Your task to perform on an android device: make emails show in primary in the gmail app Image 0: 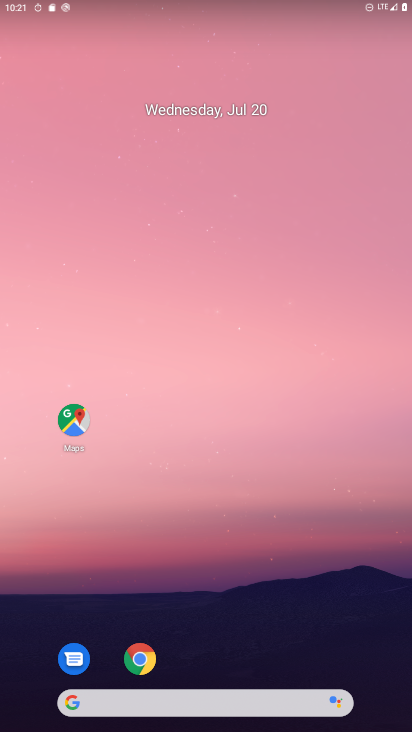
Step 0: drag from (302, 639) to (198, 101)
Your task to perform on an android device: make emails show in primary in the gmail app Image 1: 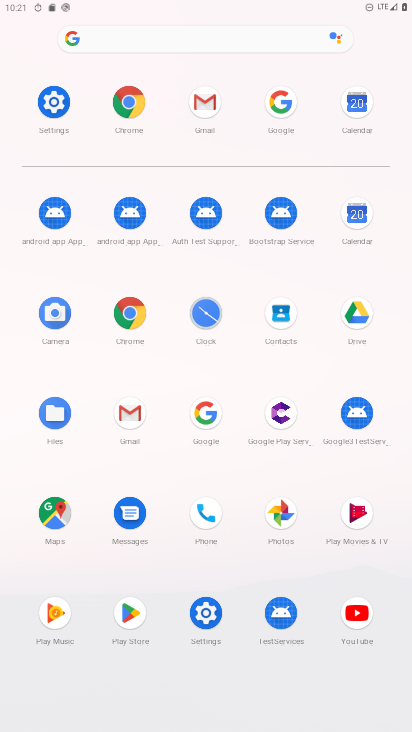
Step 1: click (204, 104)
Your task to perform on an android device: make emails show in primary in the gmail app Image 2: 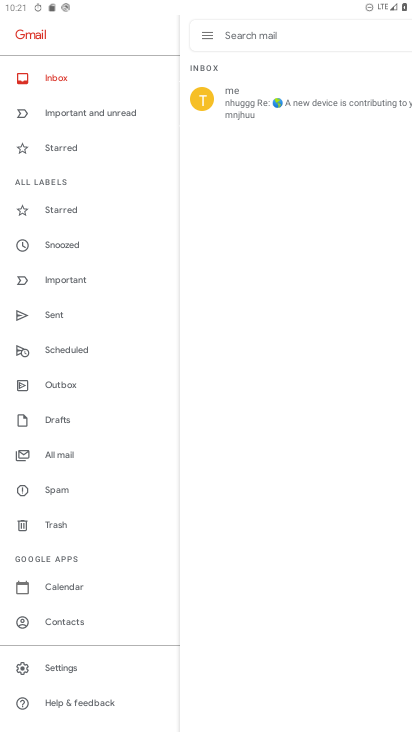
Step 2: click (83, 669)
Your task to perform on an android device: make emails show in primary in the gmail app Image 3: 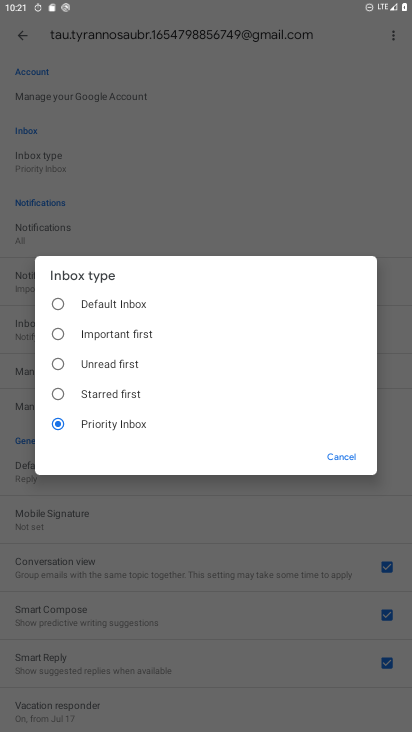
Step 3: click (103, 306)
Your task to perform on an android device: make emails show in primary in the gmail app Image 4: 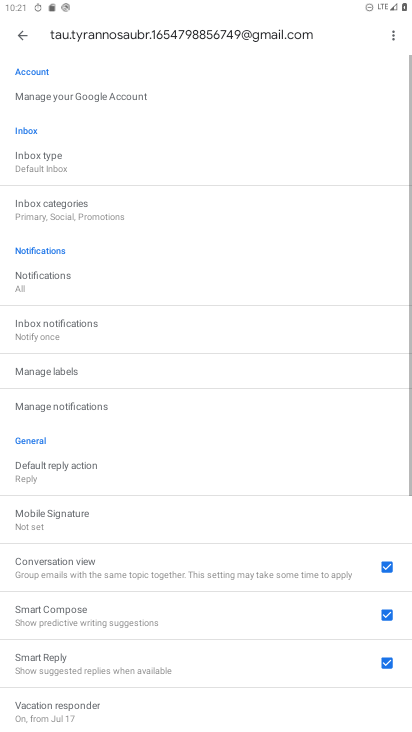
Step 4: click (62, 217)
Your task to perform on an android device: make emails show in primary in the gmail app Image 5: 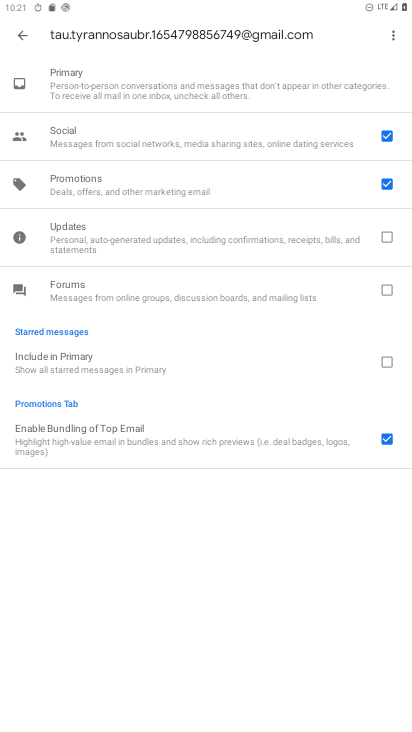
Step 5: task complete